Your task to perform on an android device: Clear the cart on target. Search for "dell xps" on target, select the first entry, add it to the cart, then select checkout. Image 0: 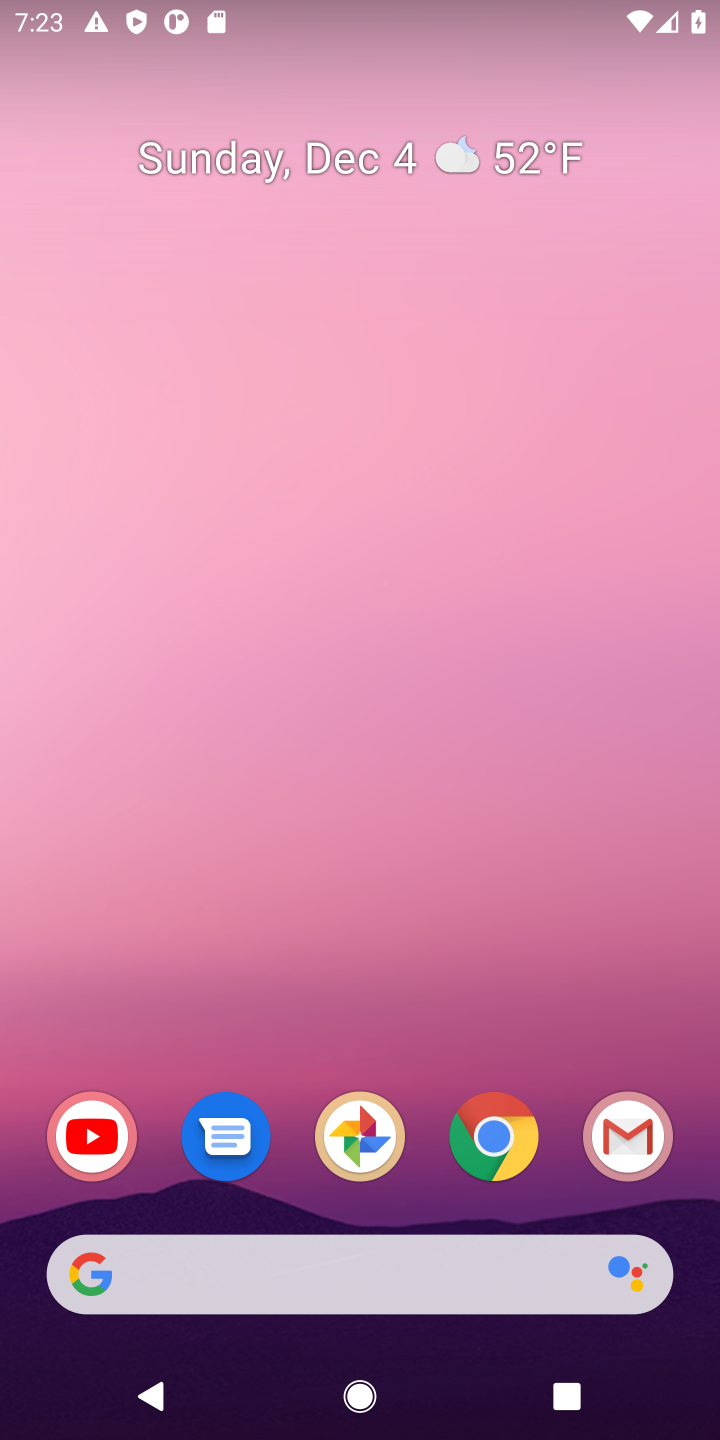
Step 0: click (493, 1135)
Your task to perform on an android device: Clear the cart on target. Search for "dell xps" on target, select the first entry, add it to the cart, then select checkout. Image 1: 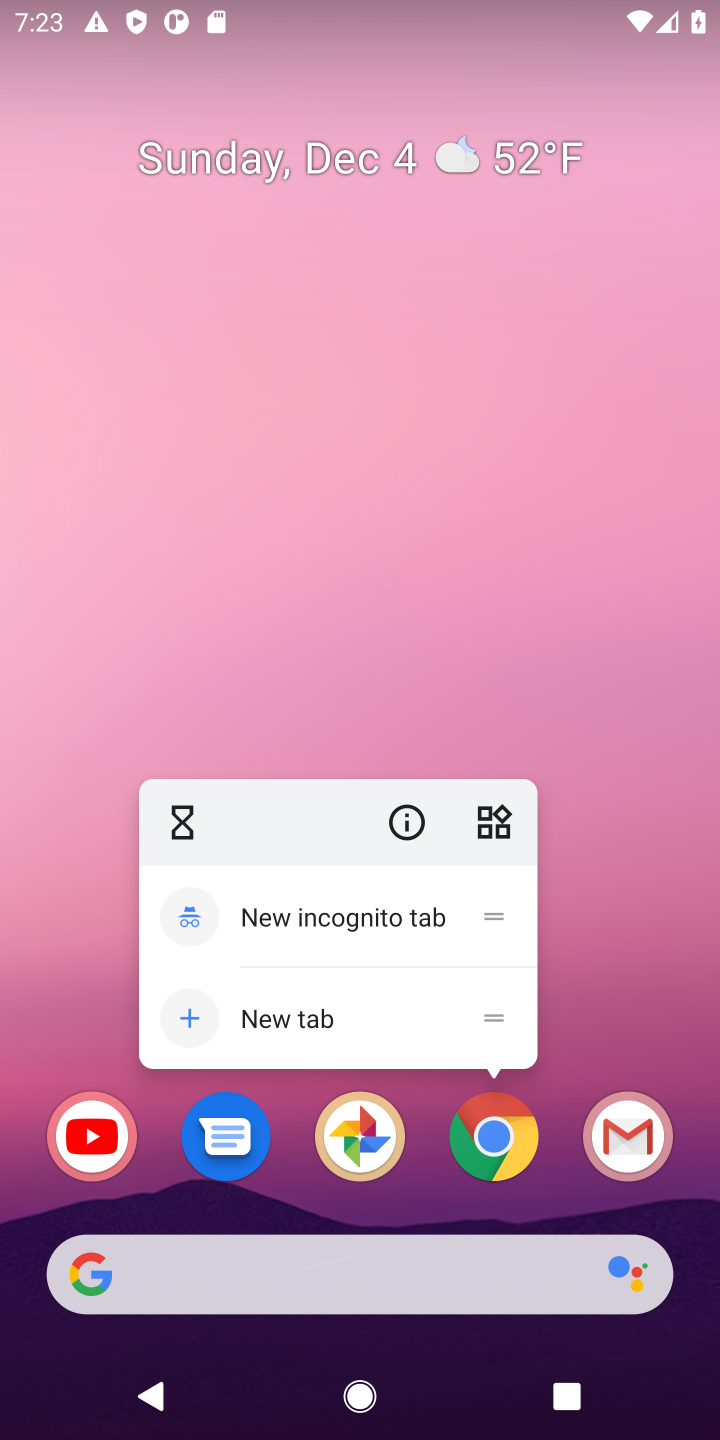
Step 1: click (493, 1135)
Your task to perform on an android device: Clear the cart on target. Search for "dell xps" on target, select the first entry, add it to the cart, then select checkout. Image 2: 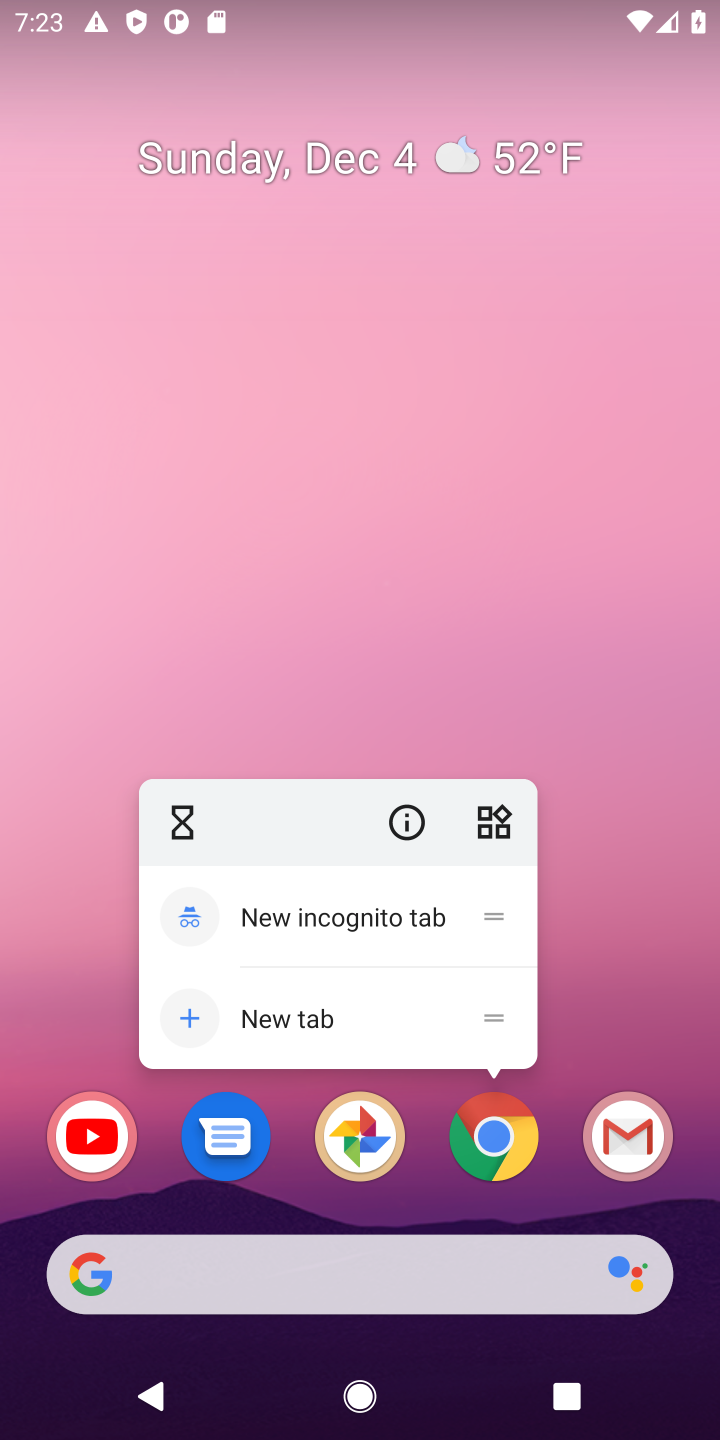
Step 2: click (493, 1135)
Your task to perform on an android device: Clear the cart on target. Search for "dell xps" on target, select the first entry, add it to the cart, then select checkout. Image 3: 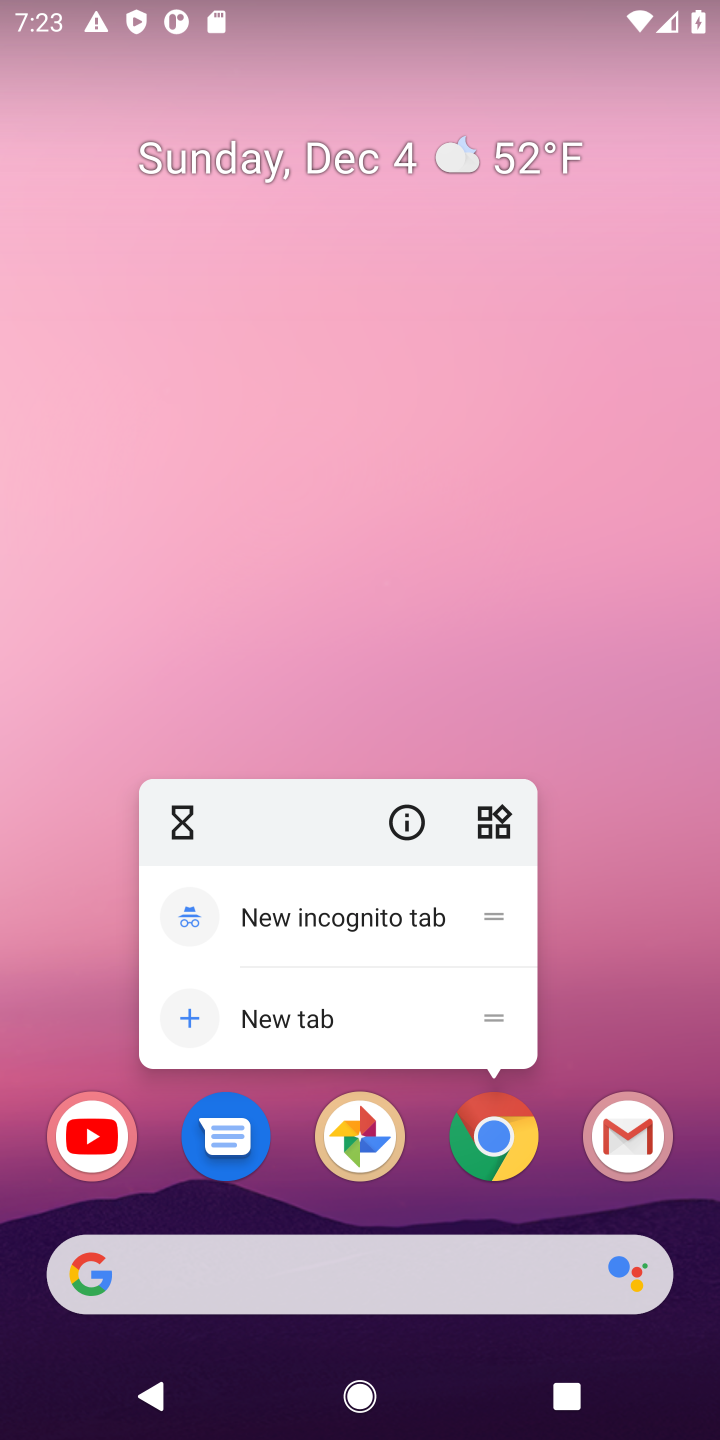
Step 3: click (502, 1150)
Your task to perform on an android device: Clear the cart on target. Search for "dell xps" on target, select the first entry, add it to the cart, then select checkout. Image 4: 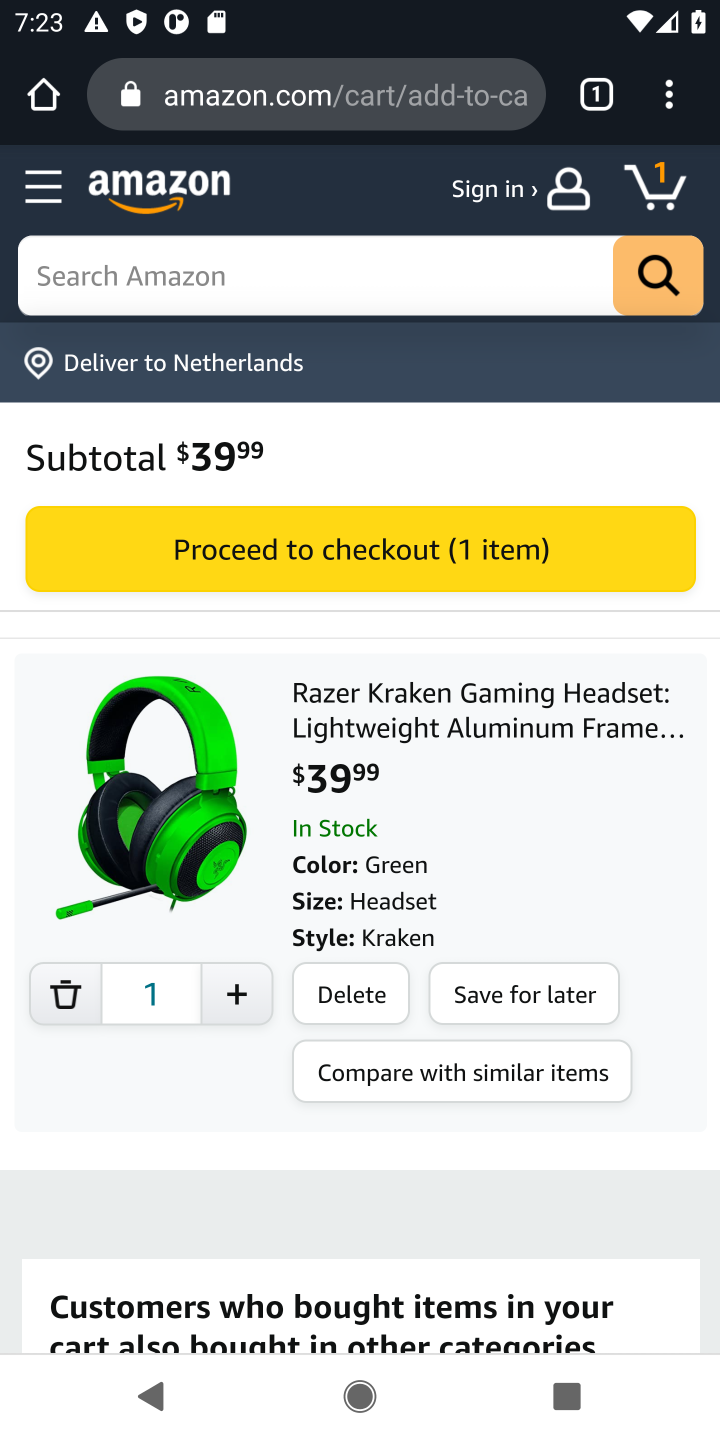
Step 4: click (321, 104)
Your task to perform on an android device: Clear the cart on target. Search for "dell xps" on target, select the first entry, add it to the cart, then select checkout. Image 5: 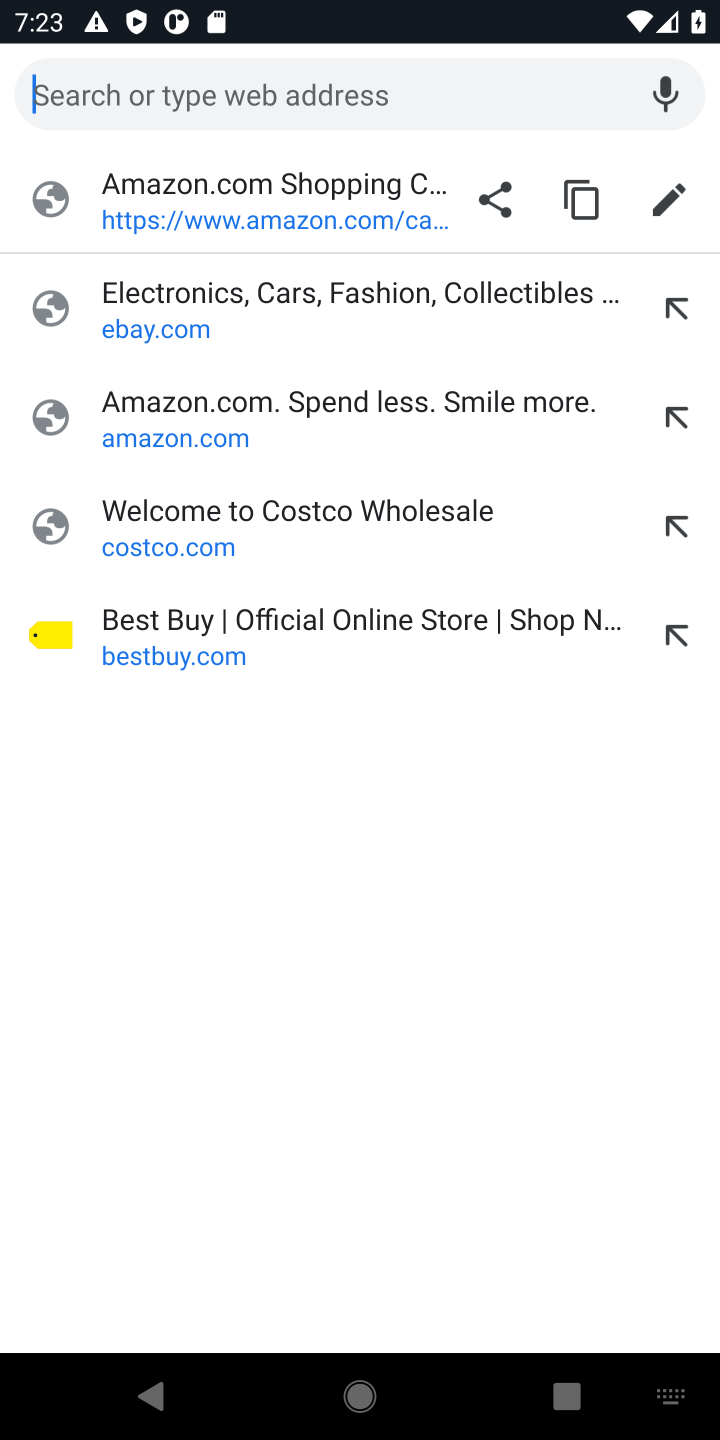
Step 5: type "target.com"
Your task to perform on an android device: Clear the cart on target. Search for "dell xps" on target, select the first entry, add it to the cart, then select checkout. Image 6: 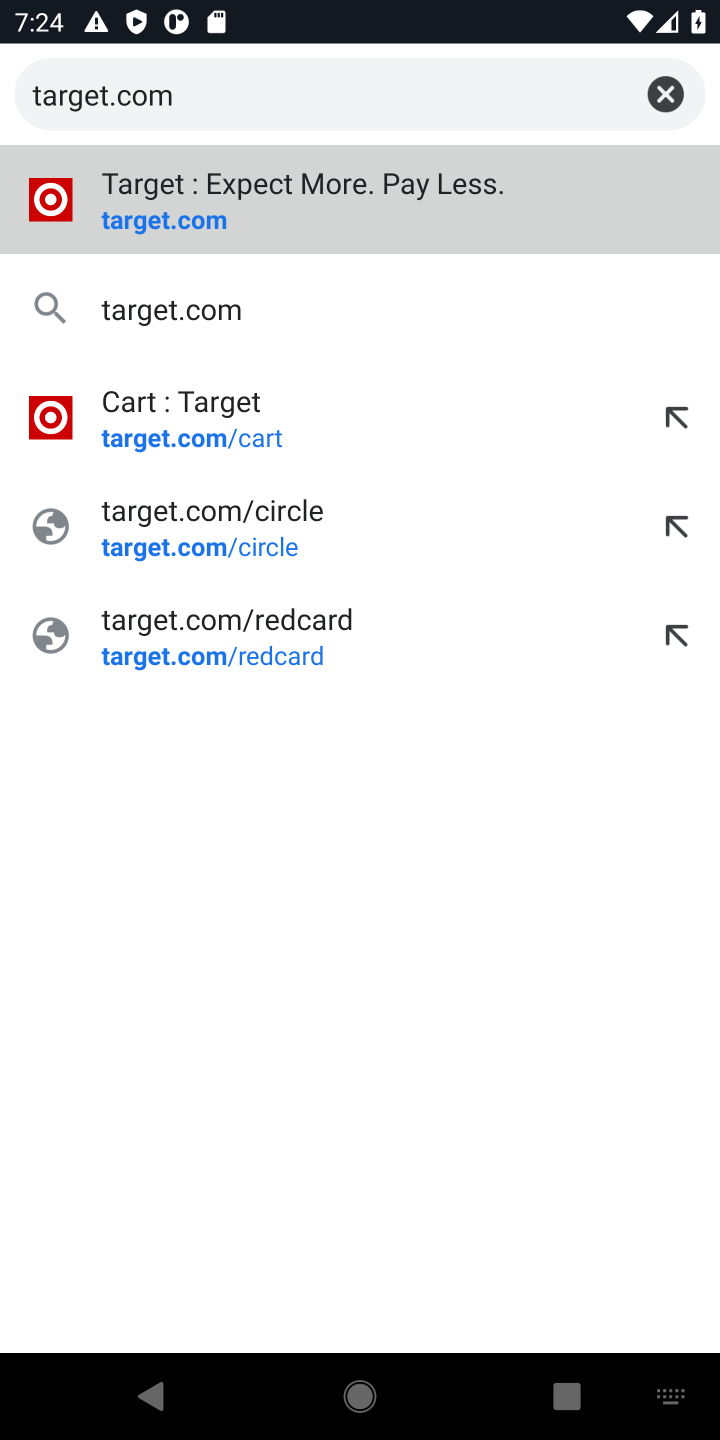
Step 6: click (154, 201)
Your task to perform on an android device: Clear the cart on target. Search for "dell xps" on target, select the first entry, add it to the cart, then select checkout. Image 7: 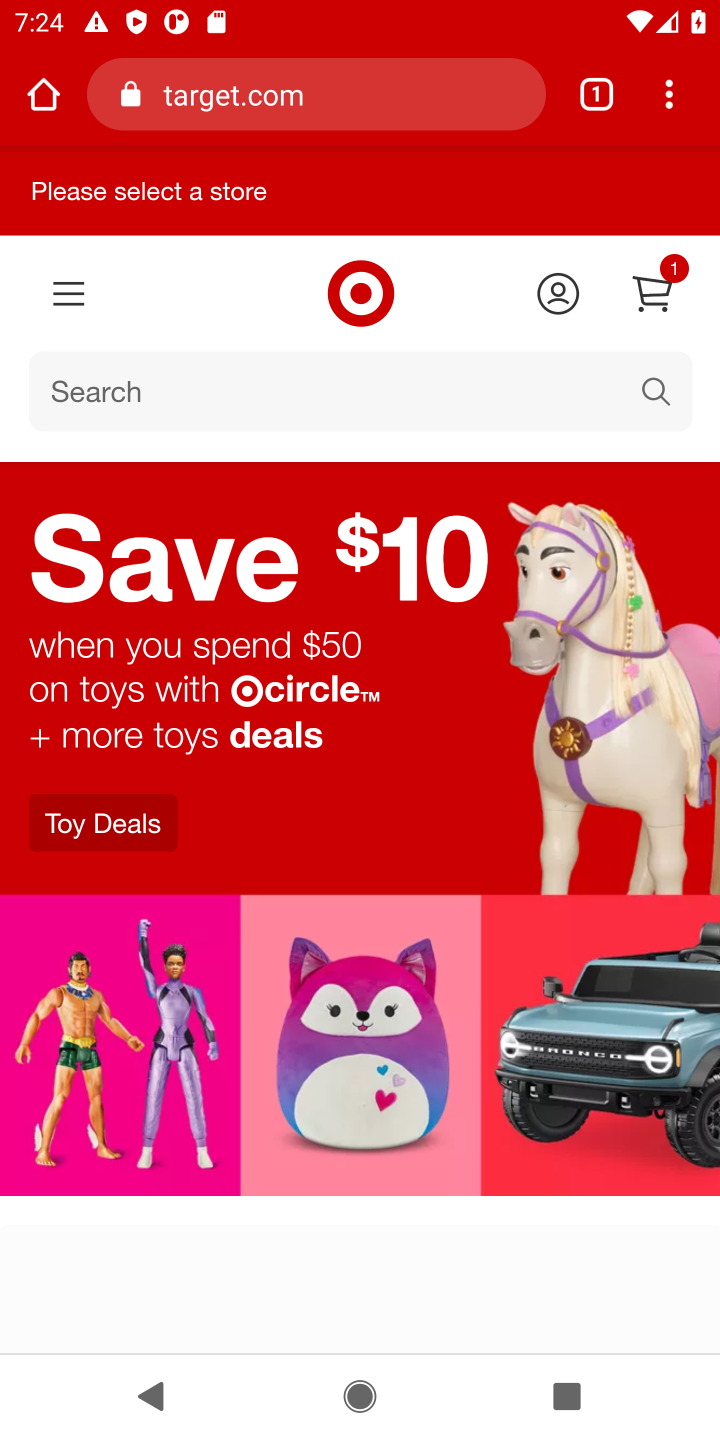
Step 7: click (658, 288)
Your task to perform on an android device: Clear the cart on target. Search for "dell xps" on target, select the first entry, add it to the cart, then select checkout. Image 8: 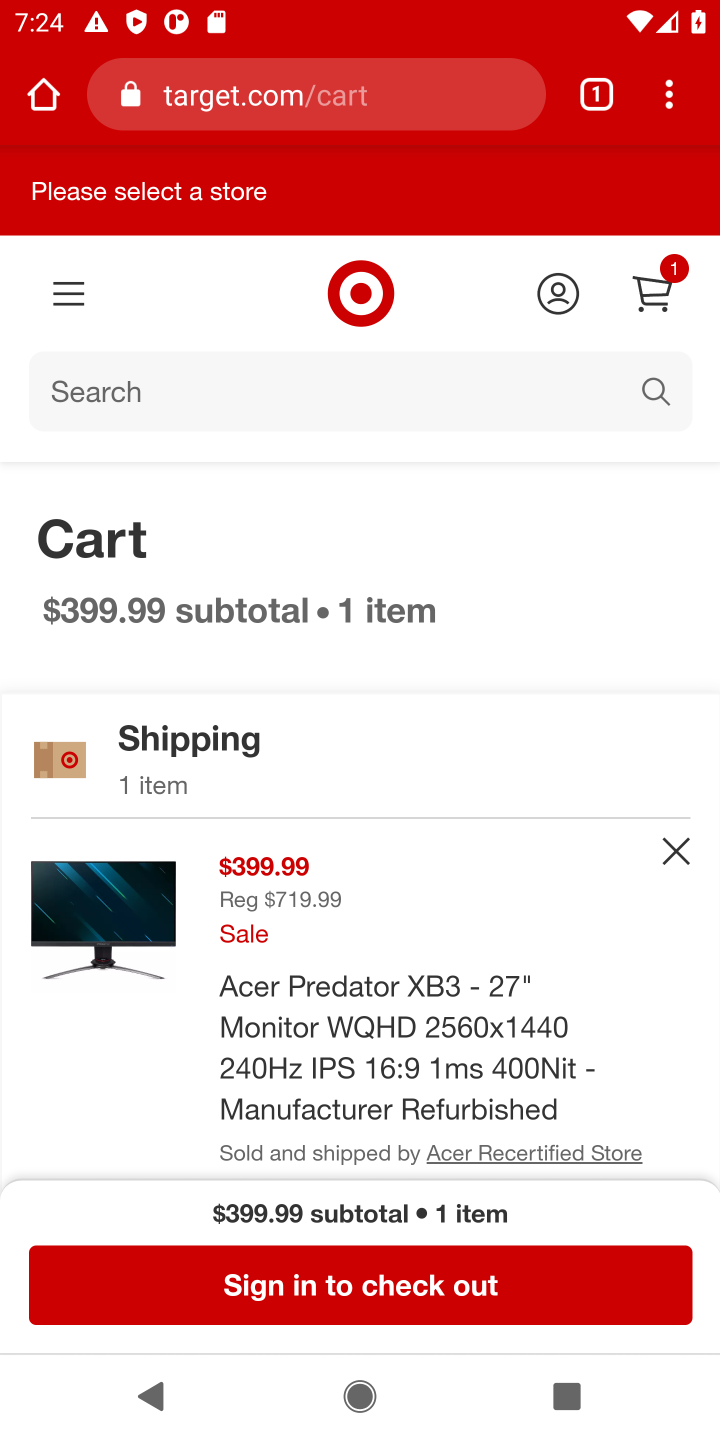
Step 8: click (678, 844)
Your task to perform on an android device: Clear the cart on target. Search for "dell xps" on target, select the first entry, add it to the cart, then select checkout. Image 9: 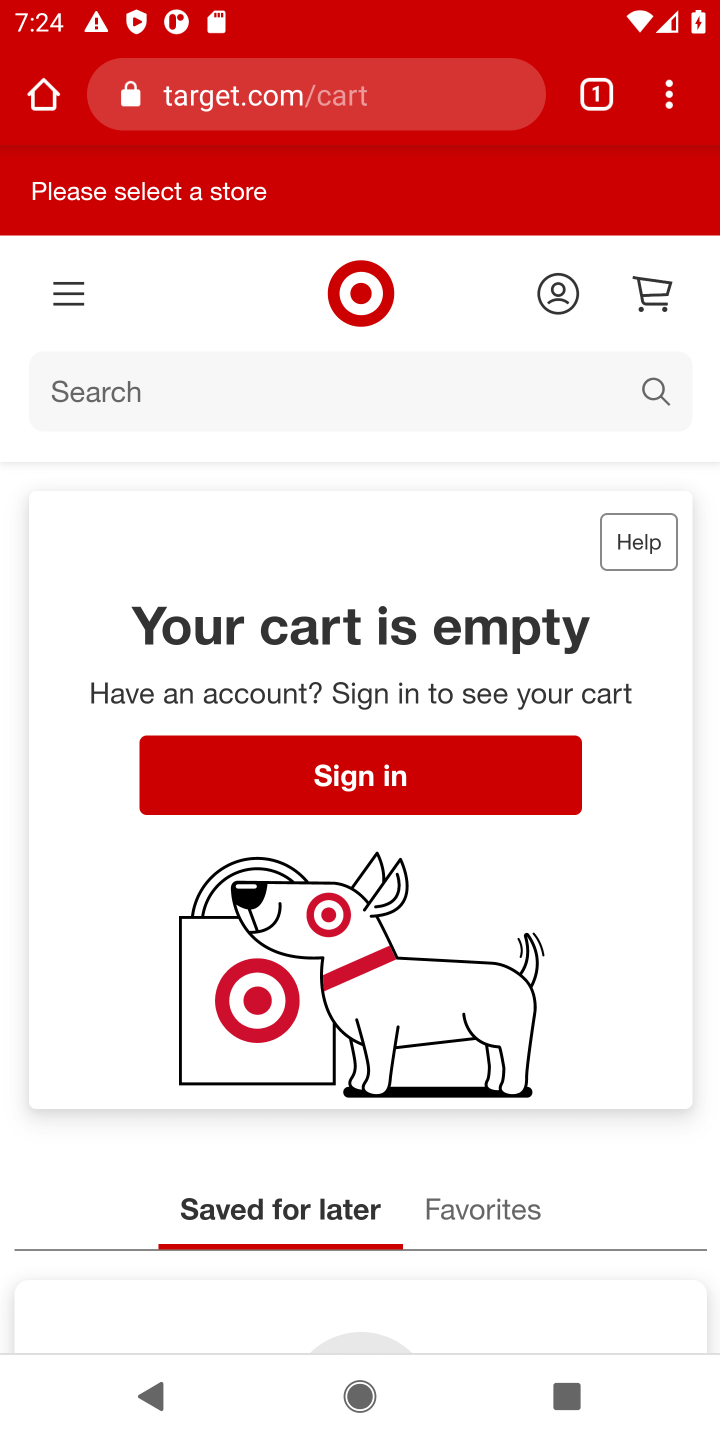
Step 9: click (73, 391)
Your task to perform on an android device: Clear the cart on target. Search for "dell xps" on target, select the first entry, add it to the cart, then select checkout. Image 10: 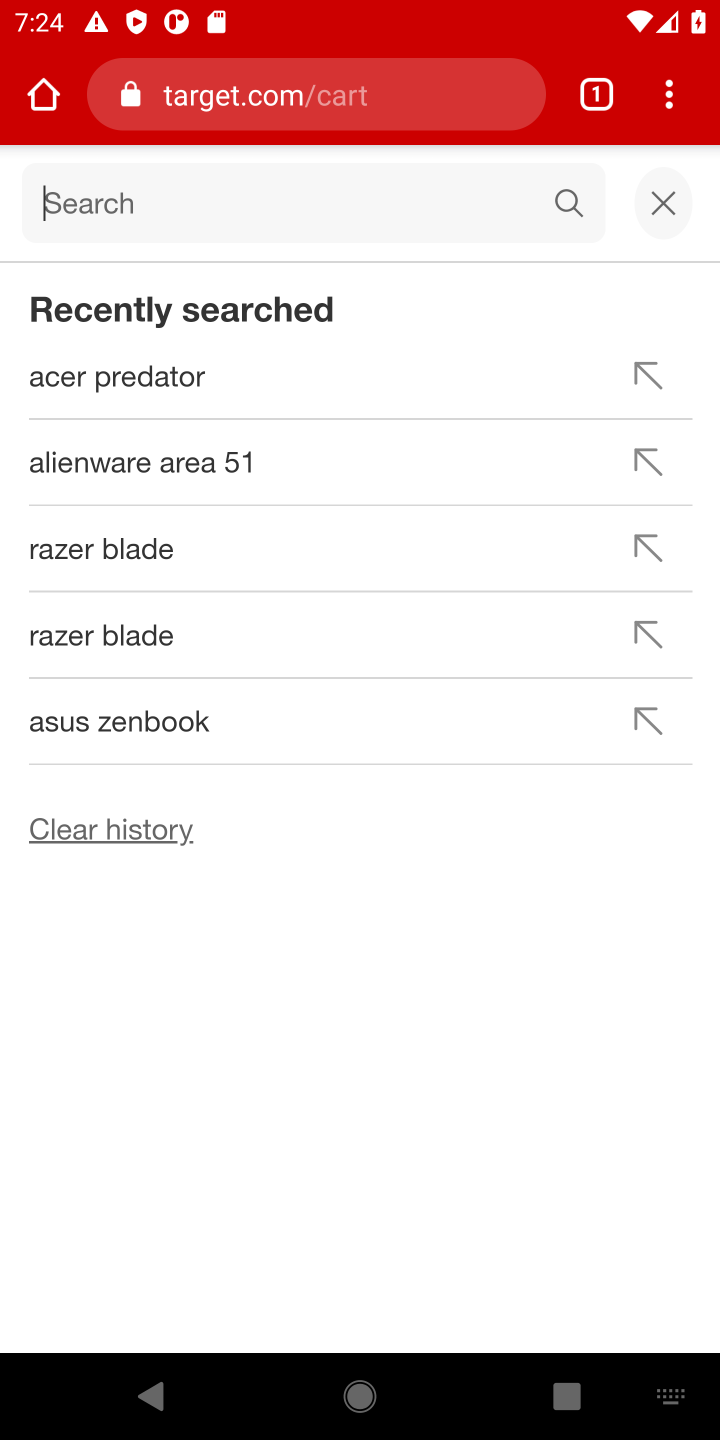
Step 10: type "dell xps"
Your task to perform on an android device: Clear the cart on target. Search for "dell xps" on target, select the first entry, add it to the cart, then select checkout. Image 11: 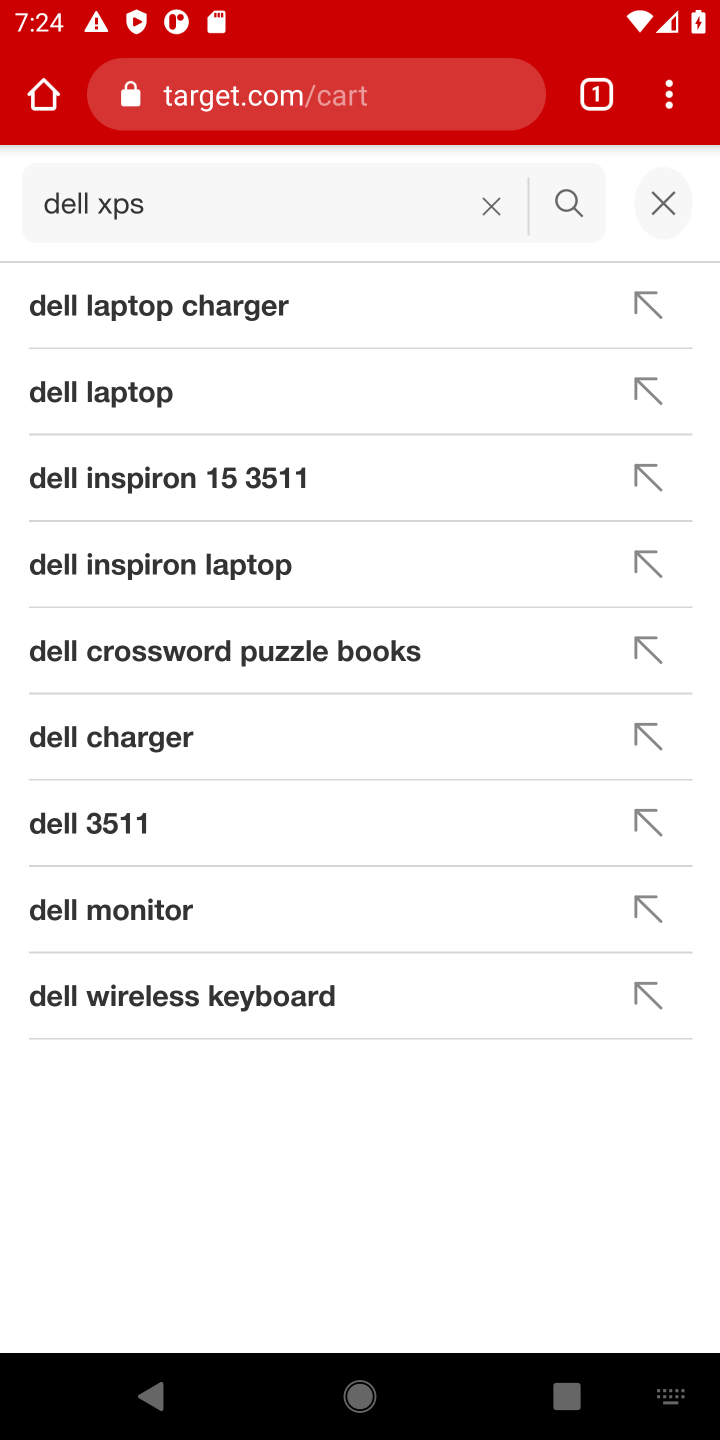
Step 11: click (567, 216)
Your task to perform on an android device: Clear the cart on target. Search for "dell xps" on target, select the first entry, add it to the cart, then select checkout. Image 12: 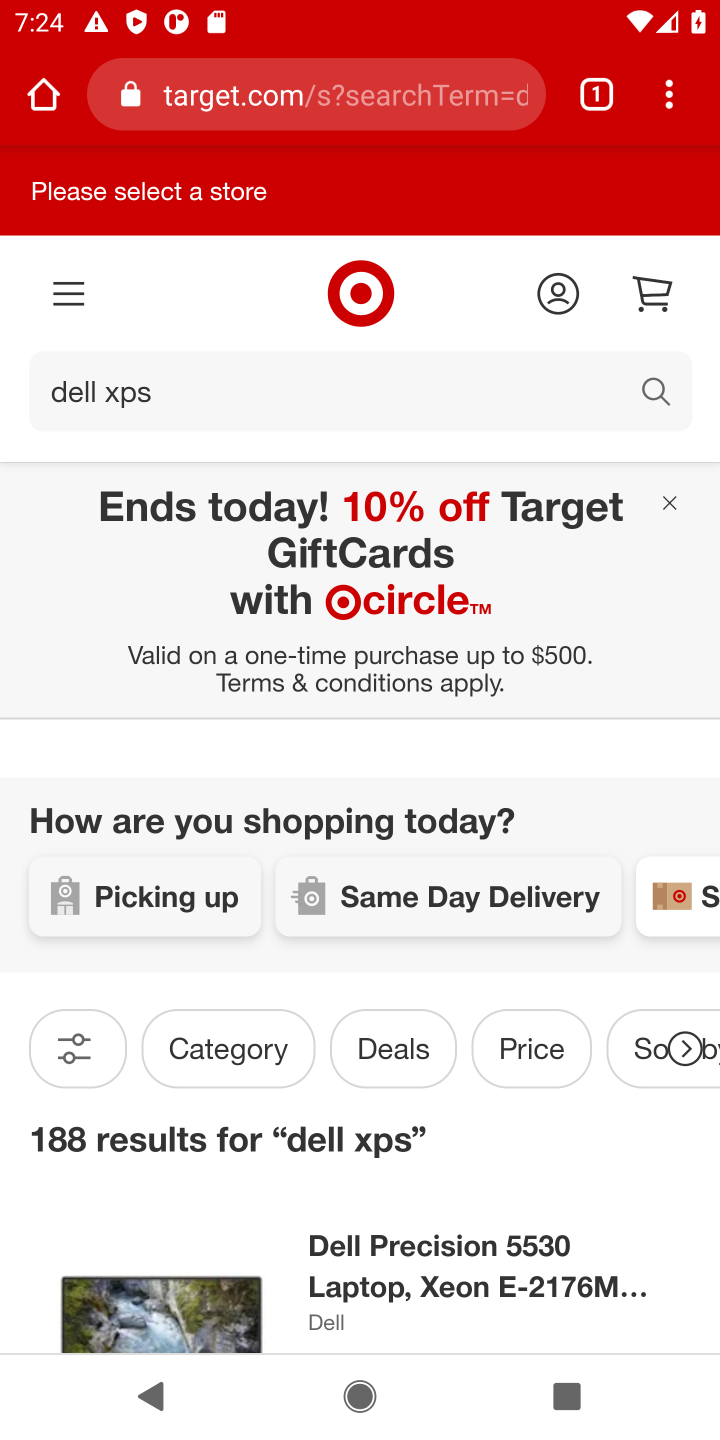
Step 12: task complete